Your task to perform on an android device: turn off picture-in-picture Image 0: 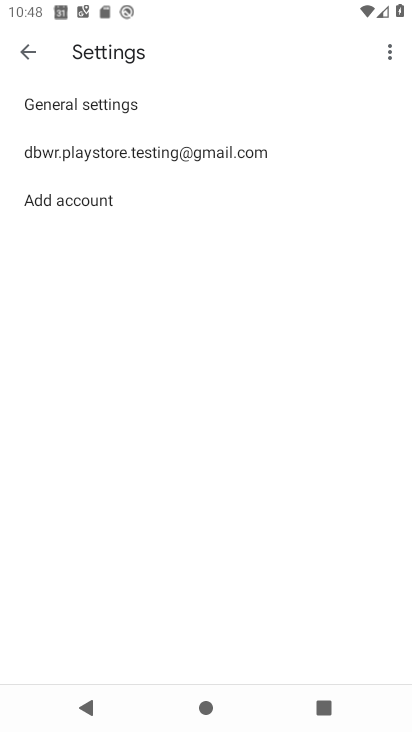
Step 0: press home button
Your task to perform on an android device: turn off picture-in-picture Image 1: 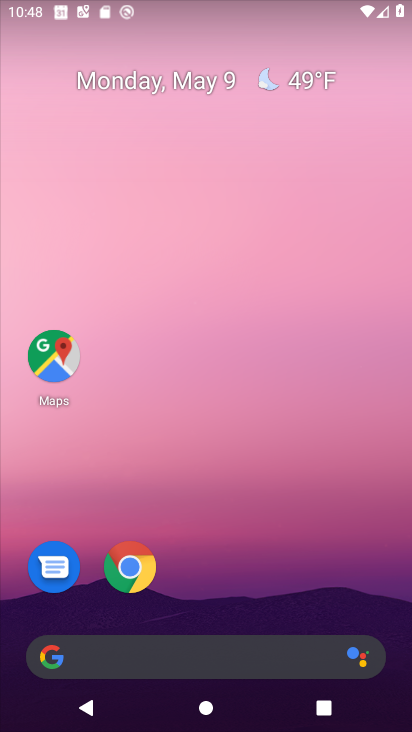
Step 1: click (132, 567)
Your task to perform on an android device: turn off picture-in-picture Image 2: 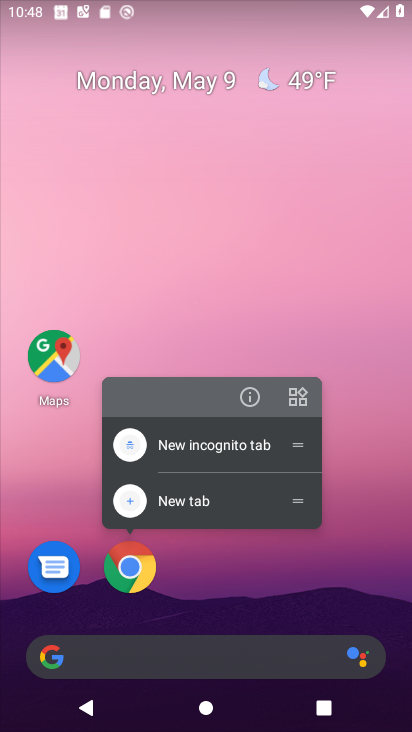
Step 2: click (254, 398)
Your task to perform on an android device: turn off picture-in-picture Image 3: 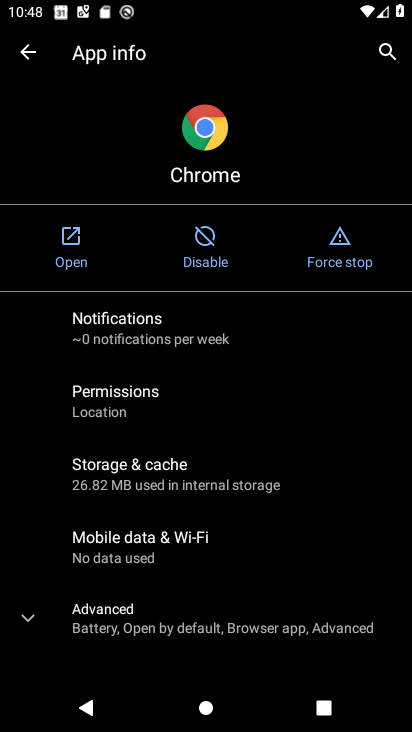
Step 3: drag from (216, 639) to (185, 346)
Your task to perform on an android device: turn off picture-in-picture Image 4: 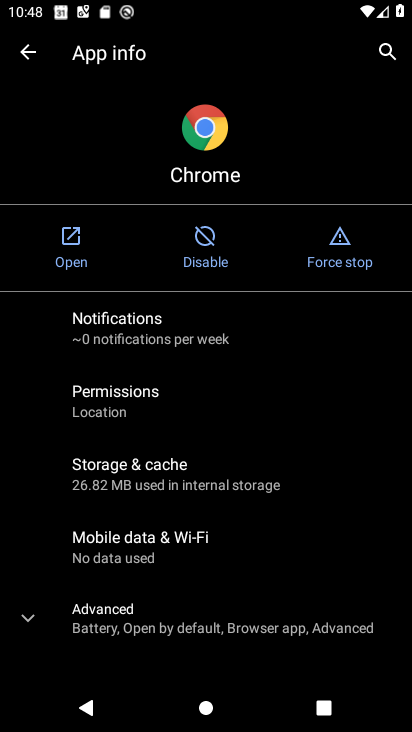
Step 4: click (151, 613)
Your task to perform on an android device: turn off picture-in-picture Image 5: 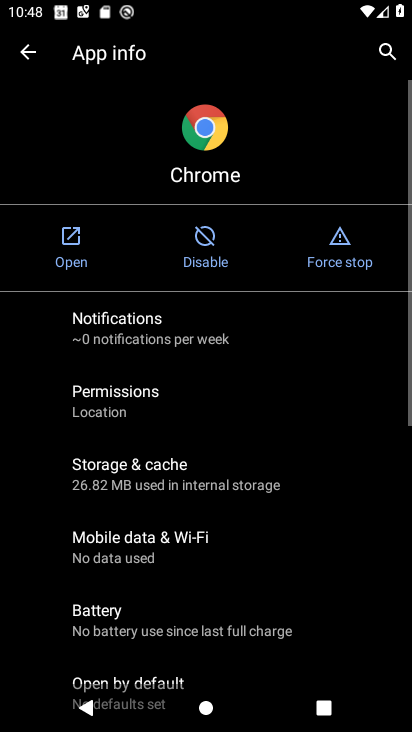
Step 5: drag from (185, 677) to (174, 433)
Your task to perform on an android device: turn off picture-in-picture Image 6: 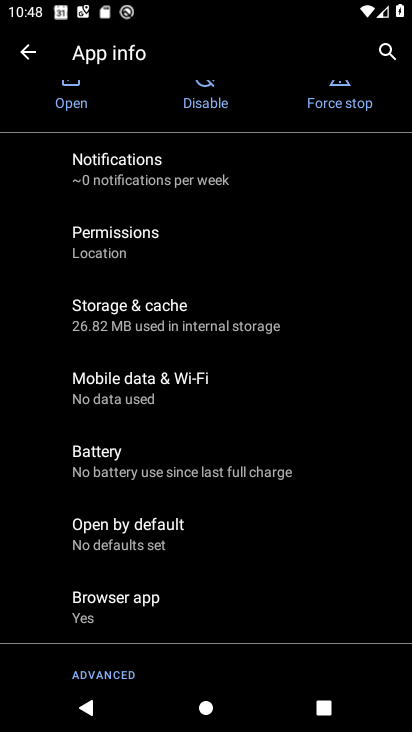
Step 6: drag from (133, 675) to (161, 373)
Your task to perform on an android device: turn off picture-in-picture Image 7: 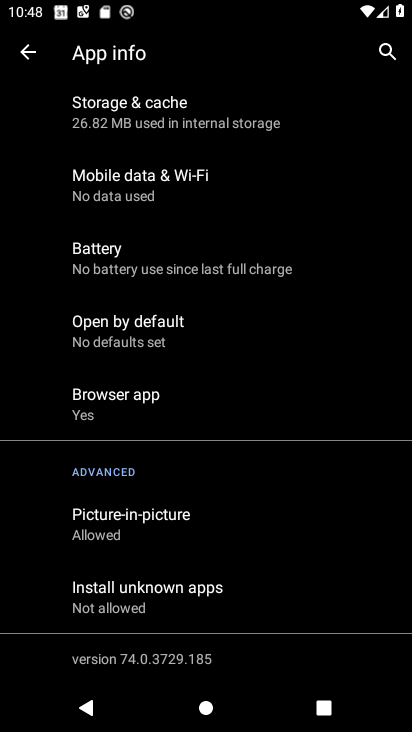
Step 7: click (122, 528)
Your task to perform on an android device: turn off picture-in-picture Image 8: 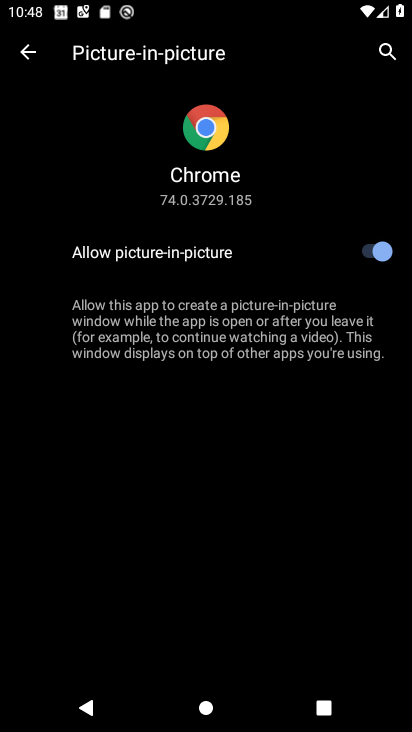
Step 8: click (360, 256)
Your task to perform on an android device: turn off picture-in-picture Image 9: 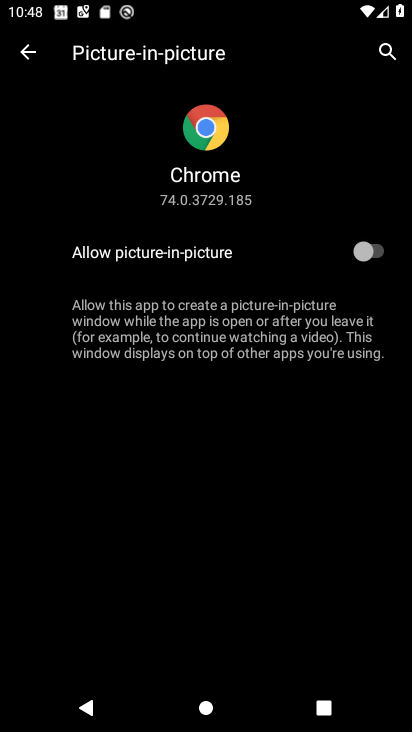
Step 9: task complete